Your task to perform on an android device: Go to Amazon Image 0: 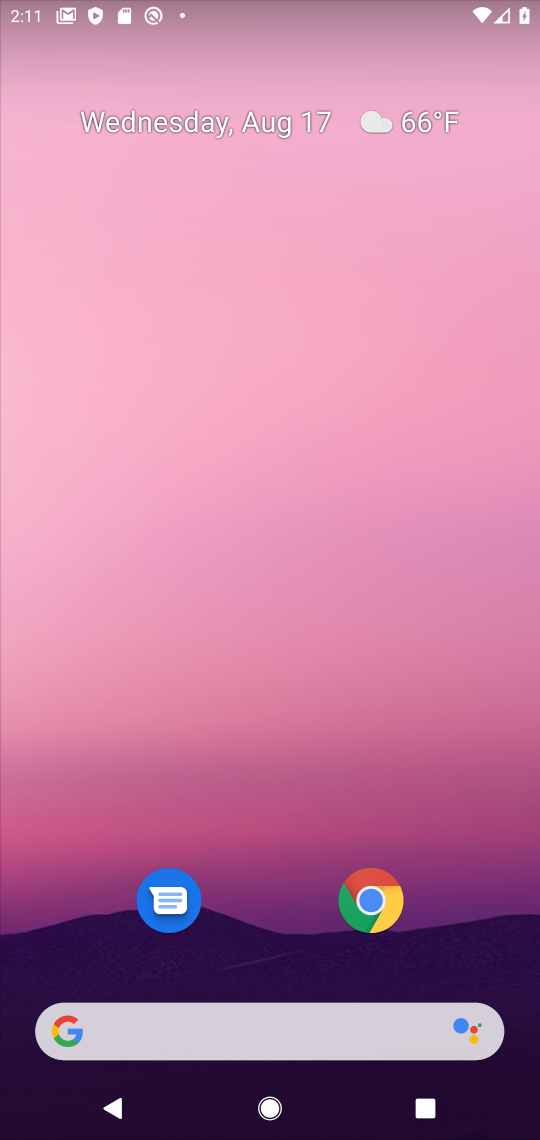
Step 0: press home button
Your task to perform on an android device: Go to Amazon Image 1: 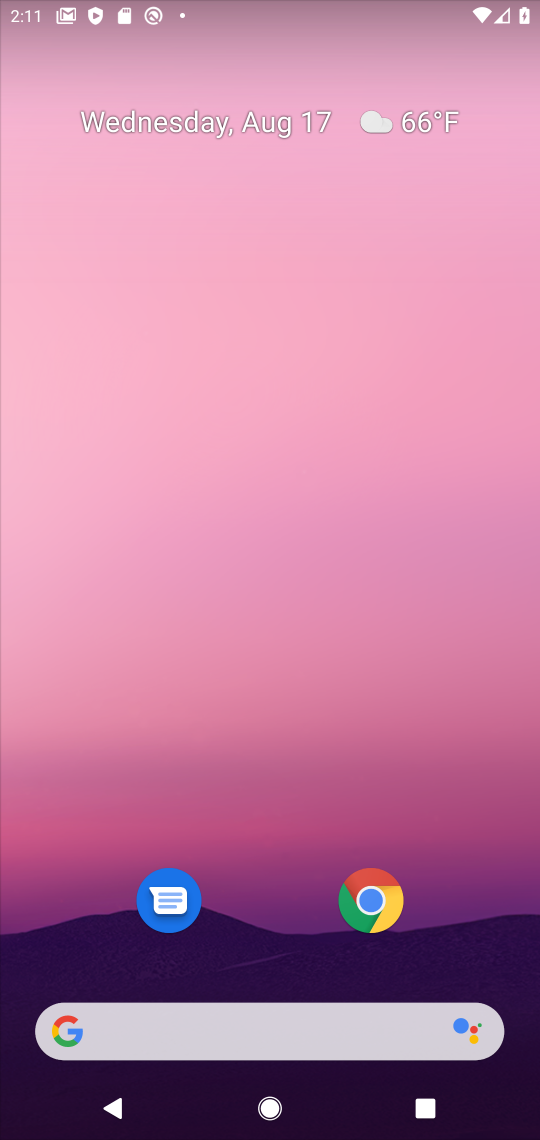
Step 1: click (358, 908)
Your task to perform on an android device: Go to Amazon Image 2: 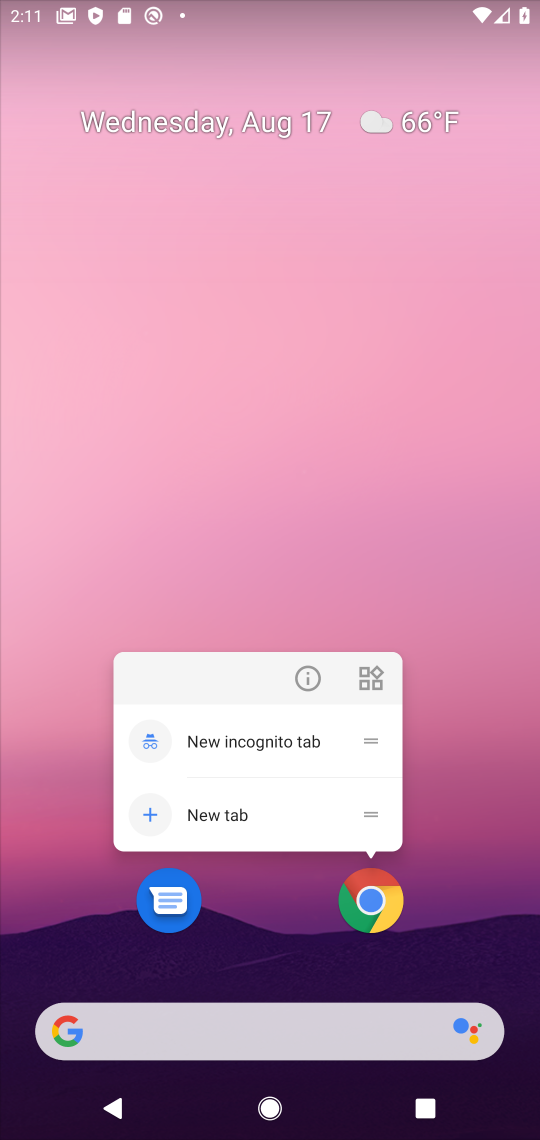
Step 2: click (358, 915)
Your task to perform on an android device: Go to Amazon Image 3: 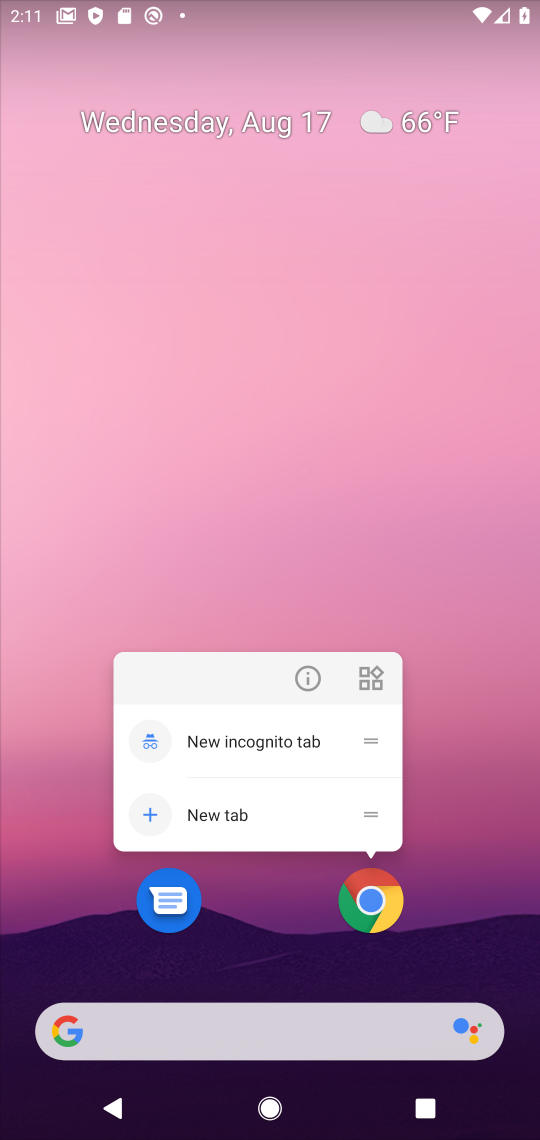
Step 3: click (381, 902)
Your task to perform on an android device: Go to Amazon Image 4: 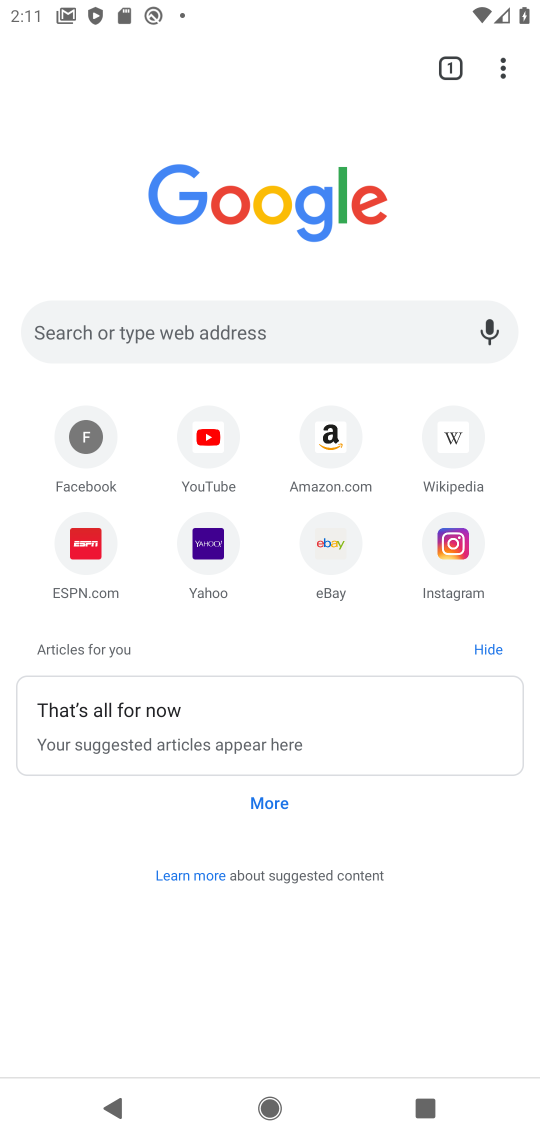
Step 4: click (332, 439)
Your task to perform on an android device: Go to Amazon Image 5: 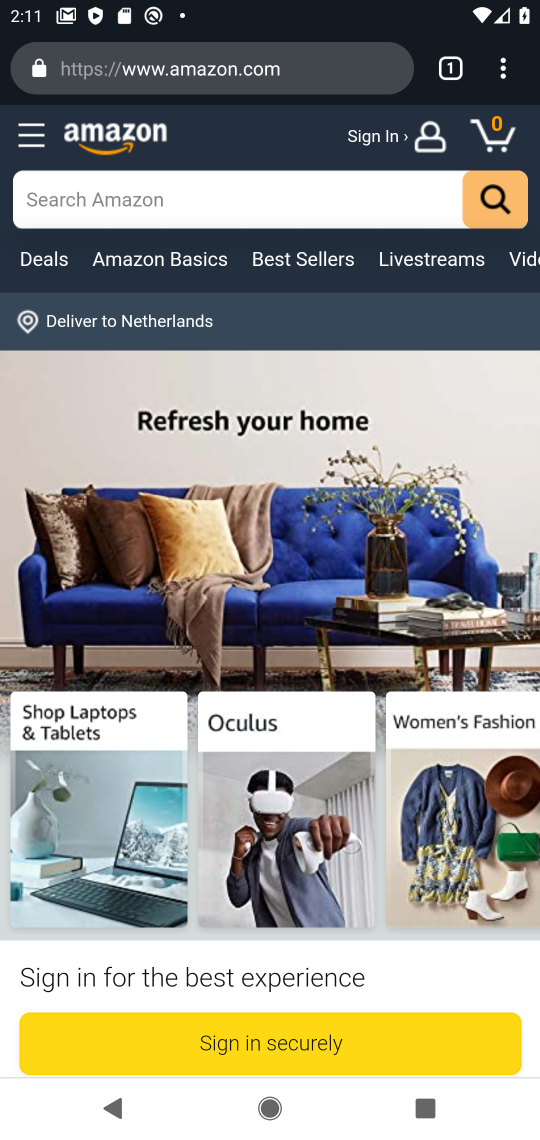
Step 5: task complete